Your task to perform on an android device: Search for the new steph curry shoes on Amazon. Image 0: 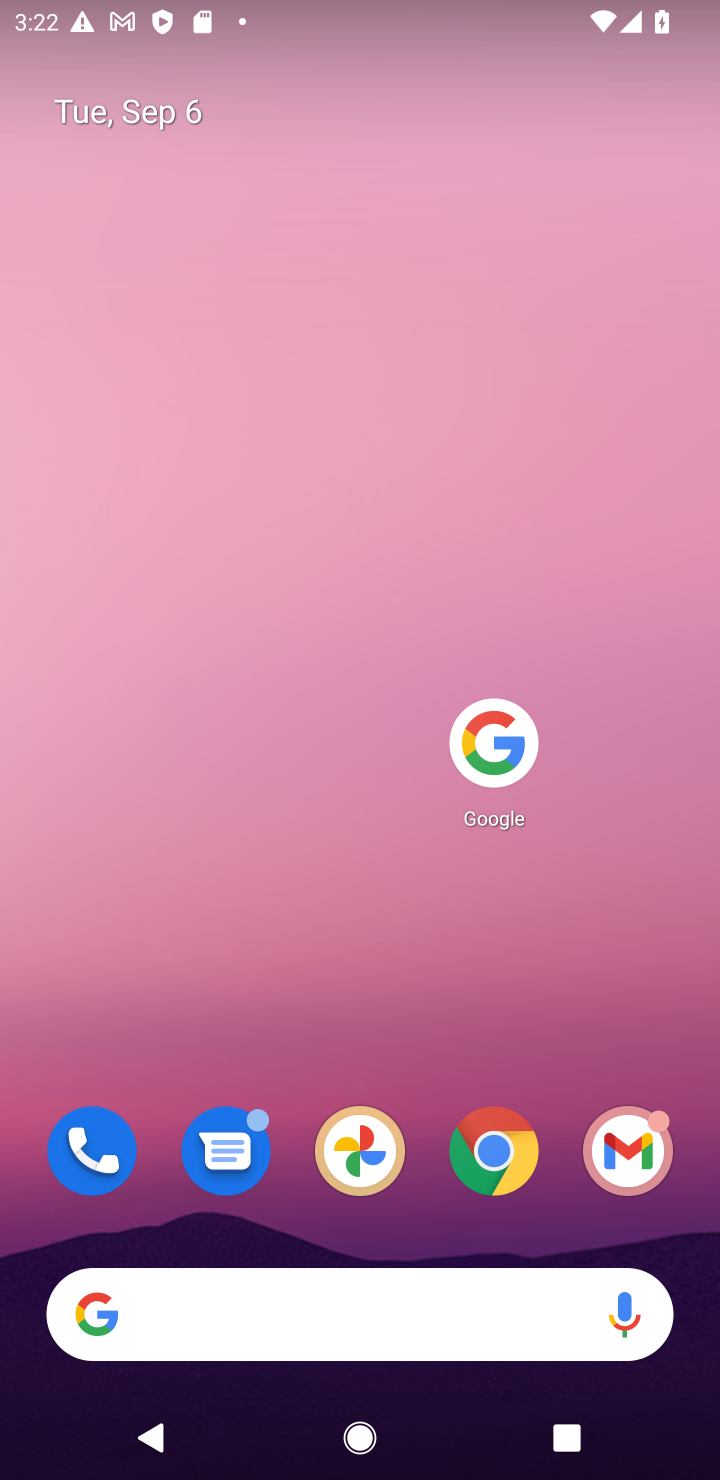
Step 0: click (509, 719)
Your task to perform on an android device: Search for the new steph curry shoes on Amazon. Image 1: 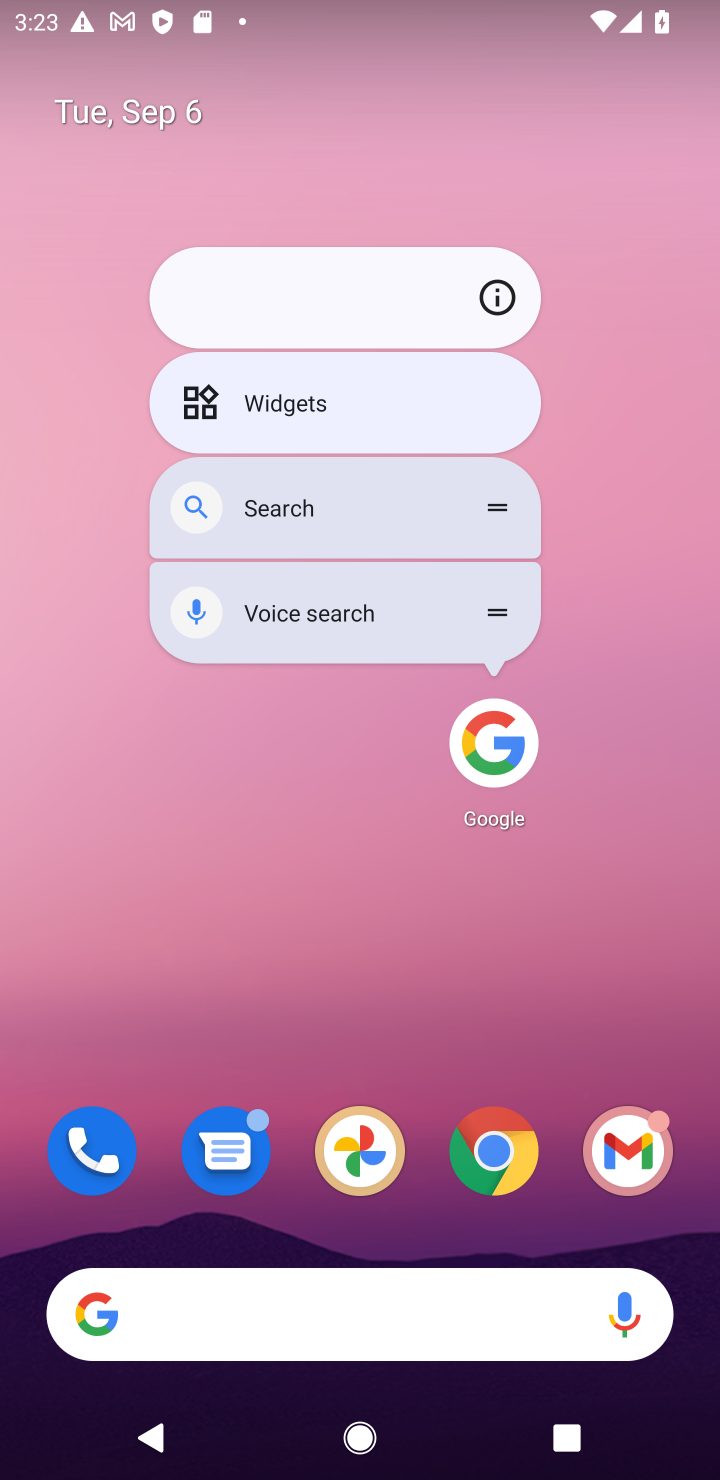
Step 1: click (497, 726)
Your task to perform on an android device: Search for the new steph curry shoes on Amazon. Image 2: 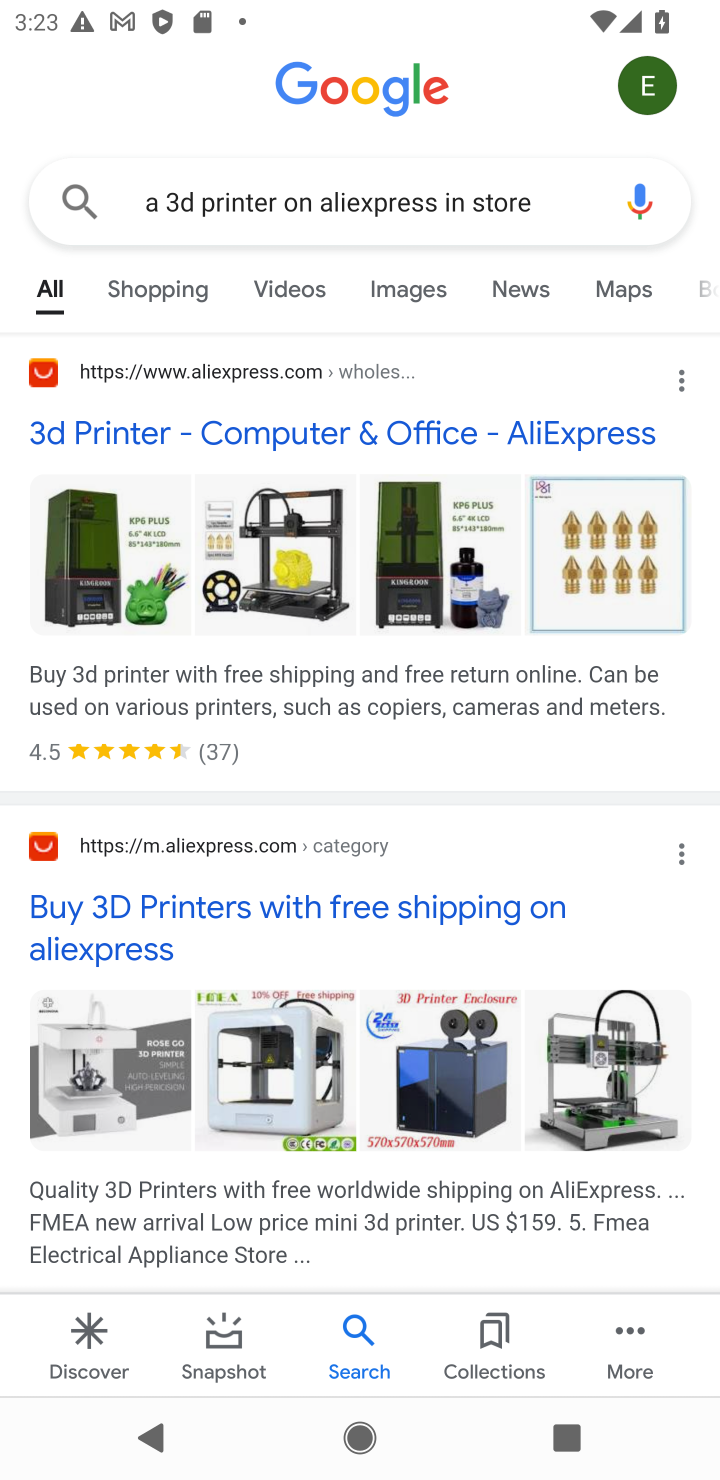
Step 2: click (525, 201)
Your task to perform on an android device: Search for the new steph curry shoes on Amazon. Image 3: 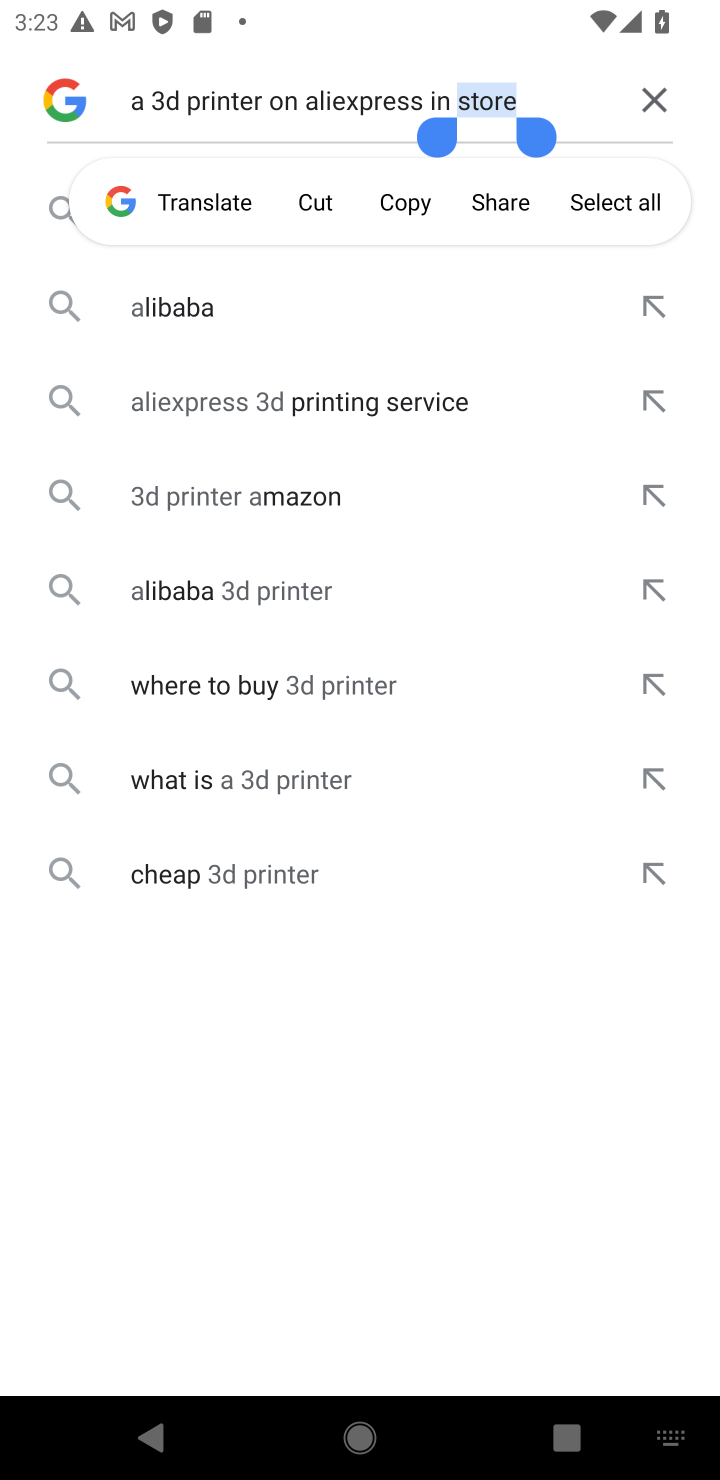
Step 3: click (659, 82)
Your task to perform on an android device: Search for the new steph curry shoes on Amazon. Image 4: 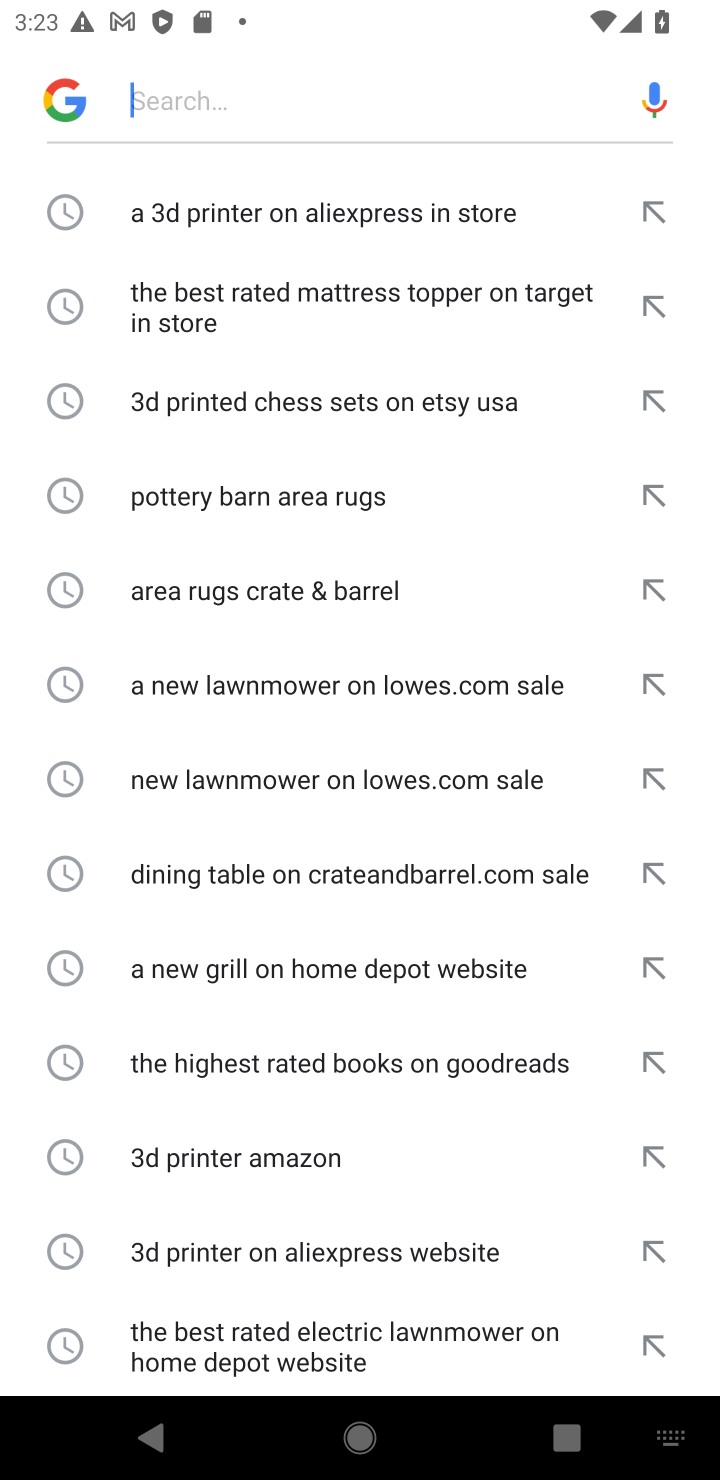
Step 4: click (290, 77)
Your task to perform on an android device: Search for the new steph curry shoes on Amazon. Image 5: 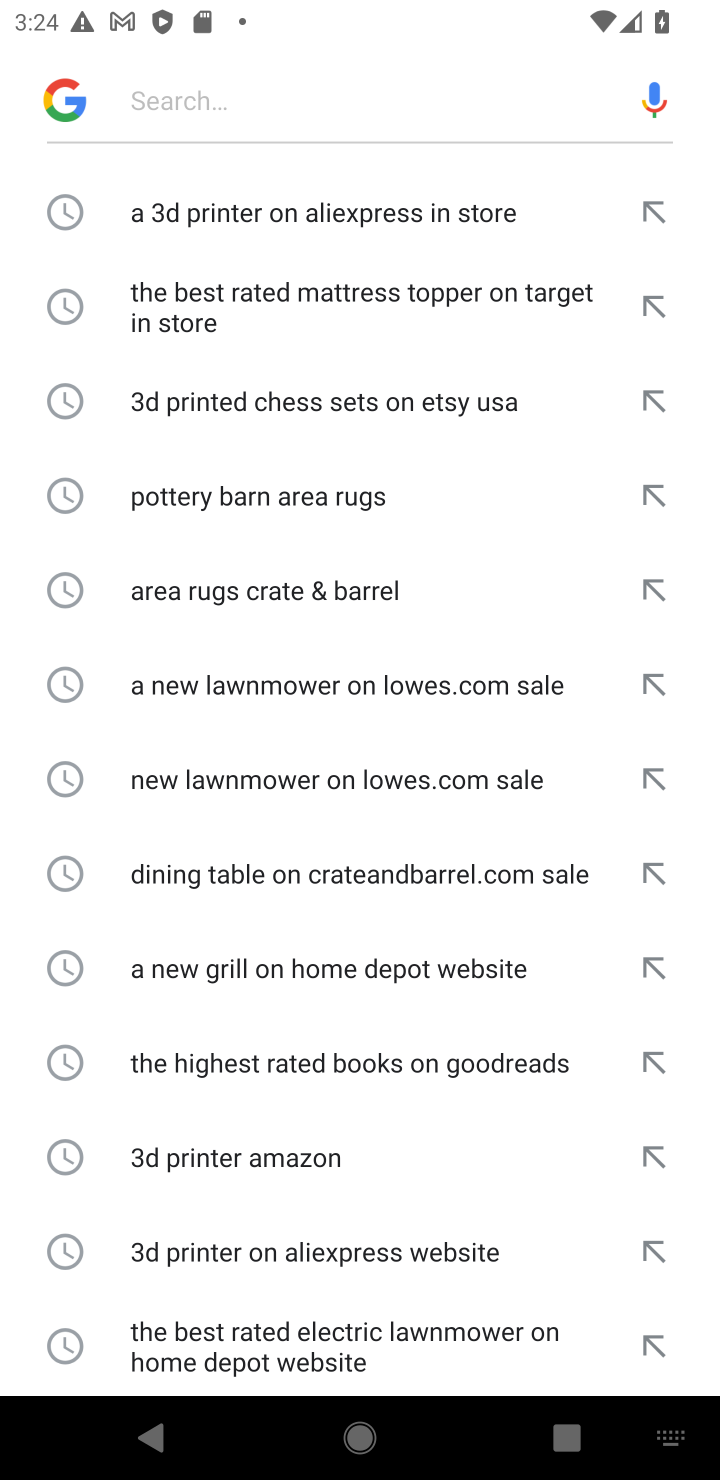
Step 5: type "the new steph curry shoes on Amazon "
Your task to perform on an android device: Search for the new steph curry shoes on Amazon. Image 6: 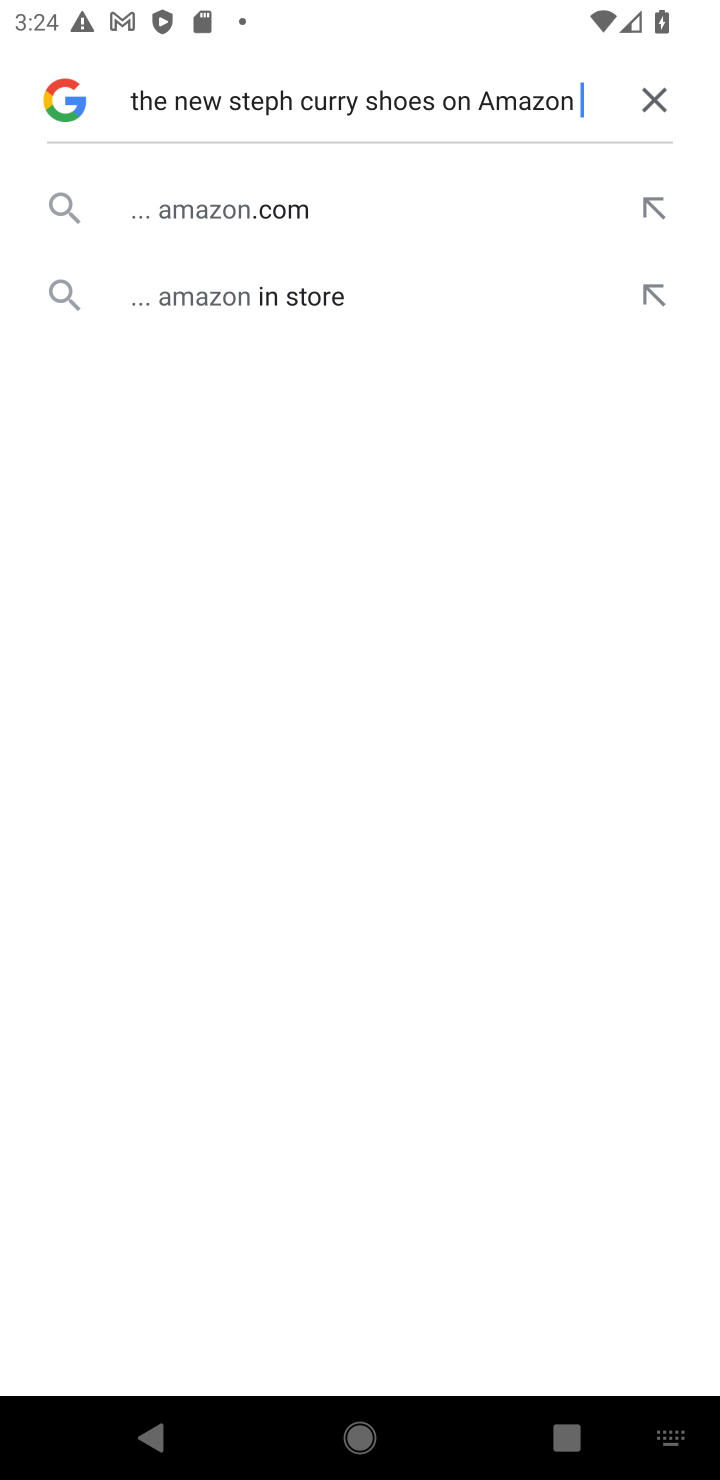
Step 6: click (332, 181)
Your task to perform on an android device: Search for the new steph curry shoes on Amazon. Image 7: 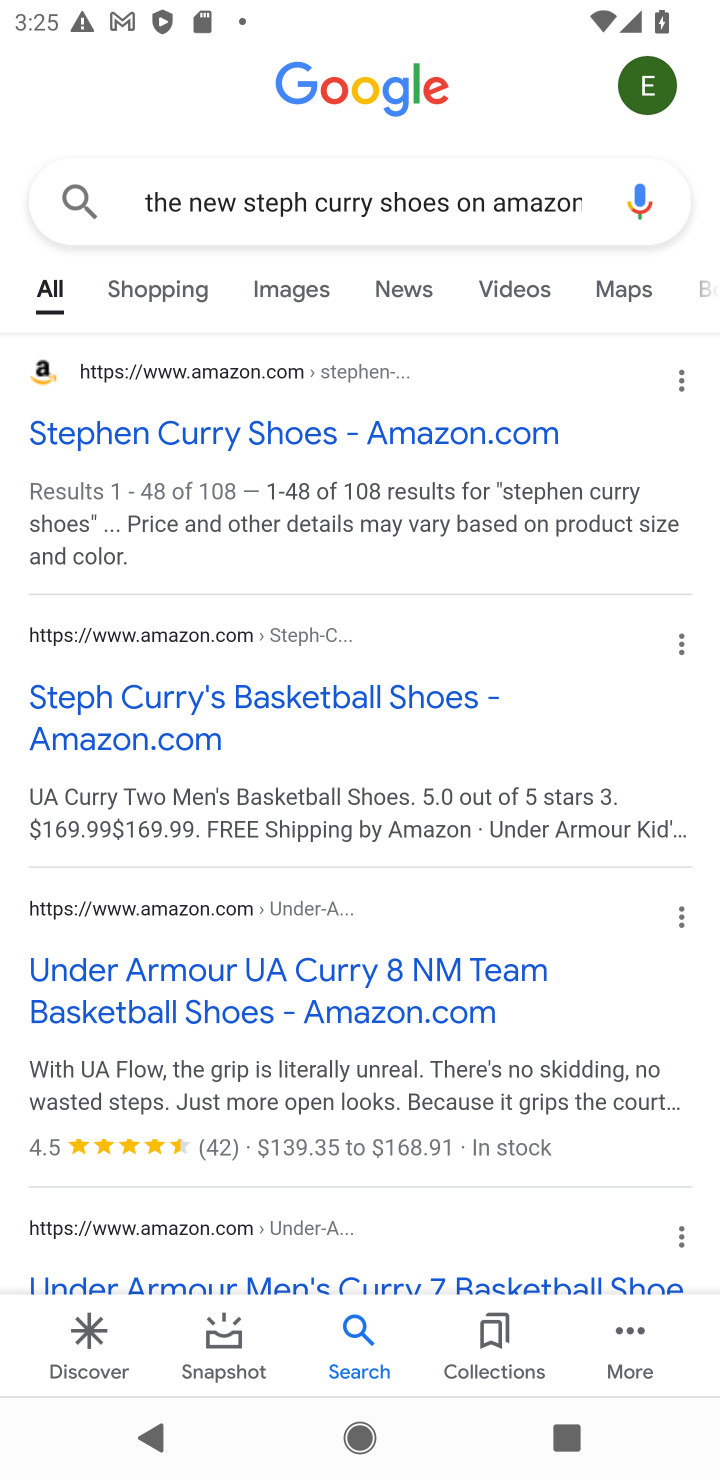
Step 7: click (374, 430)
Your task to perform on an android device: Search for the new steph curry shoes on Amazon. Image 8: 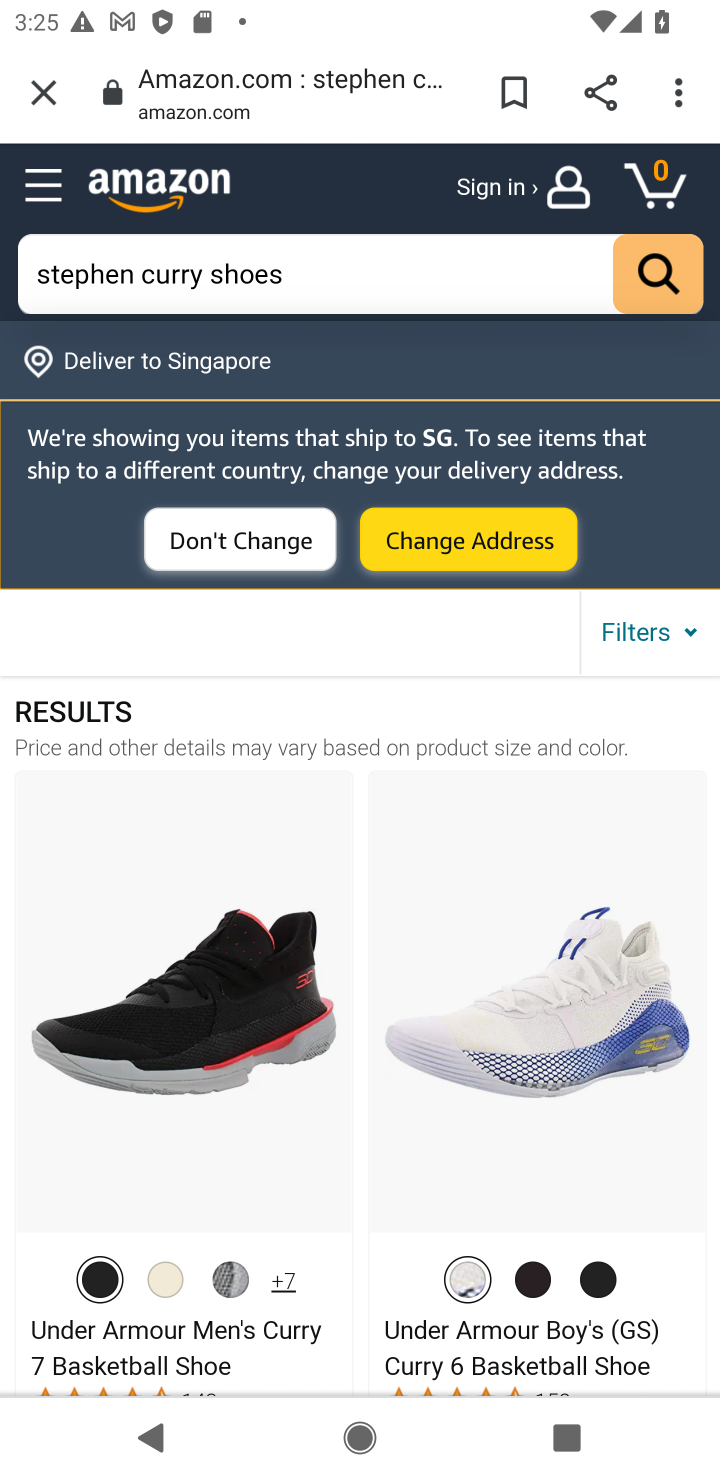
Step 8: task complete